Your task to perform on an android device: Open network settings Image 0: 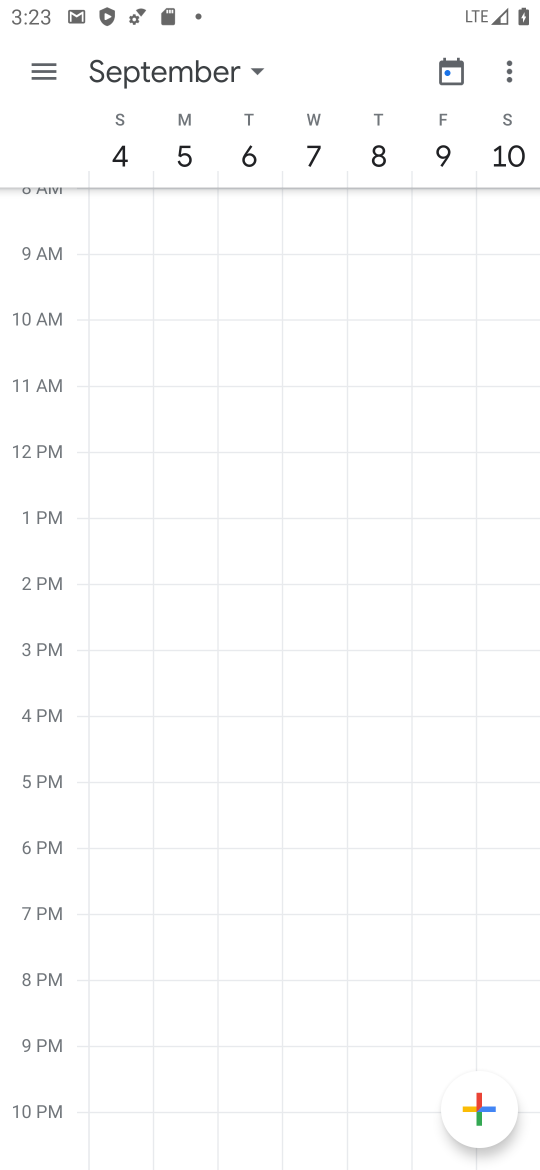
Step 0: press home button
Your task to perform on an android device: Open network settings Image 1: 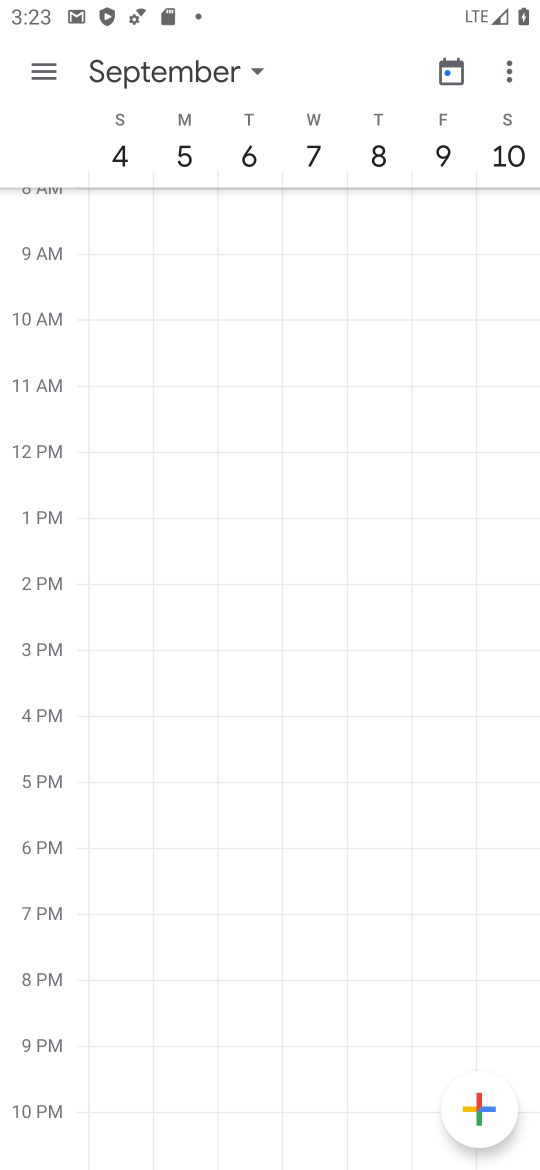
Step 1: press home button
Your task to perform on an android device: Open network settings Image 2: 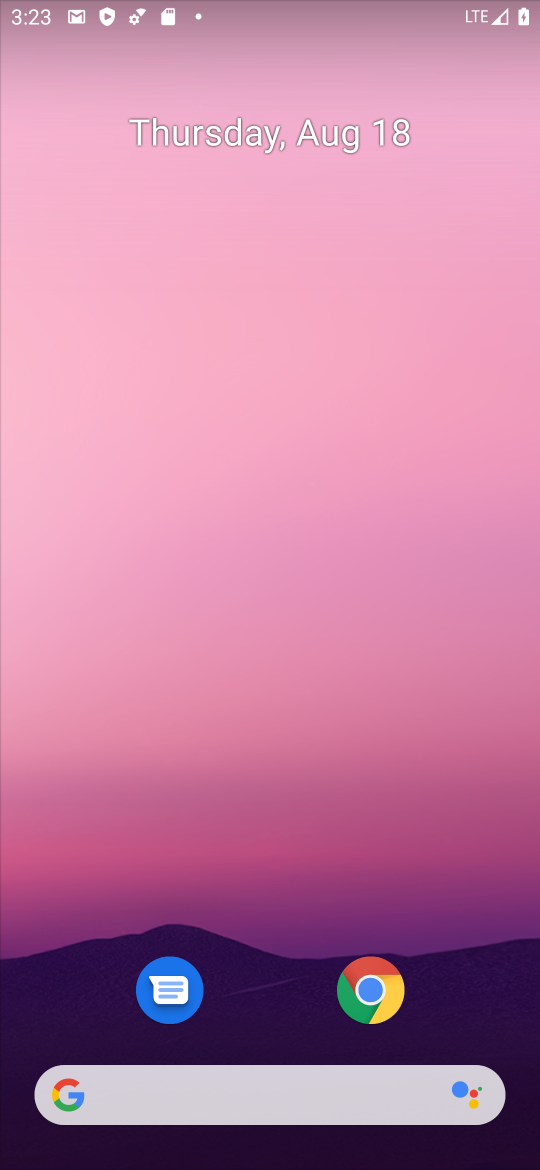
Step 2: drag from (277, 980) to (314, 53)
Your task to perform on an android device: Open network settings Image 3: 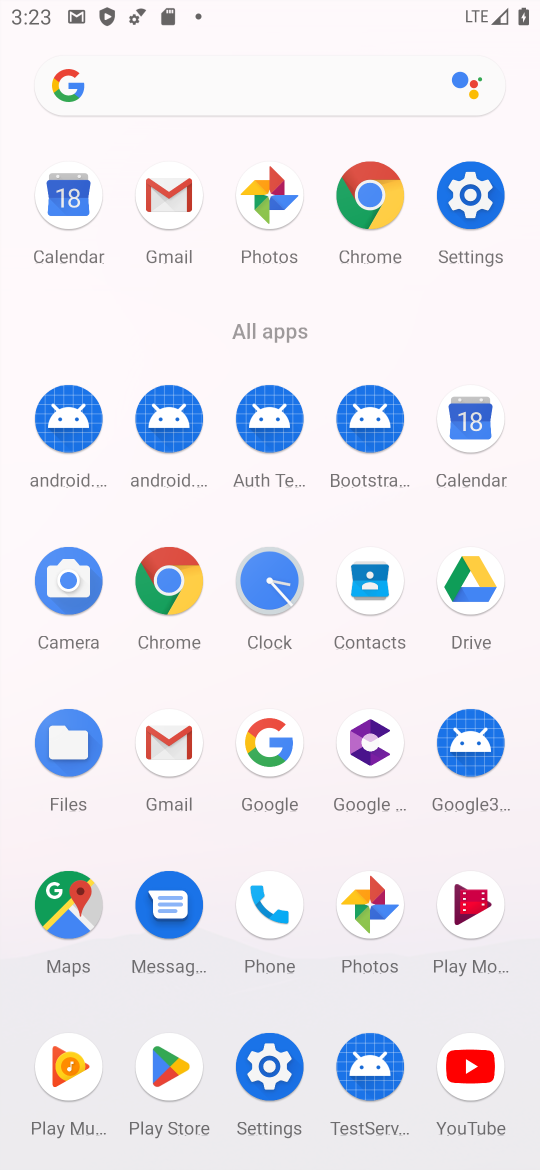
Step 3: click (268, 1070)
Your task to perform on an android device: Open network settings Image 4: 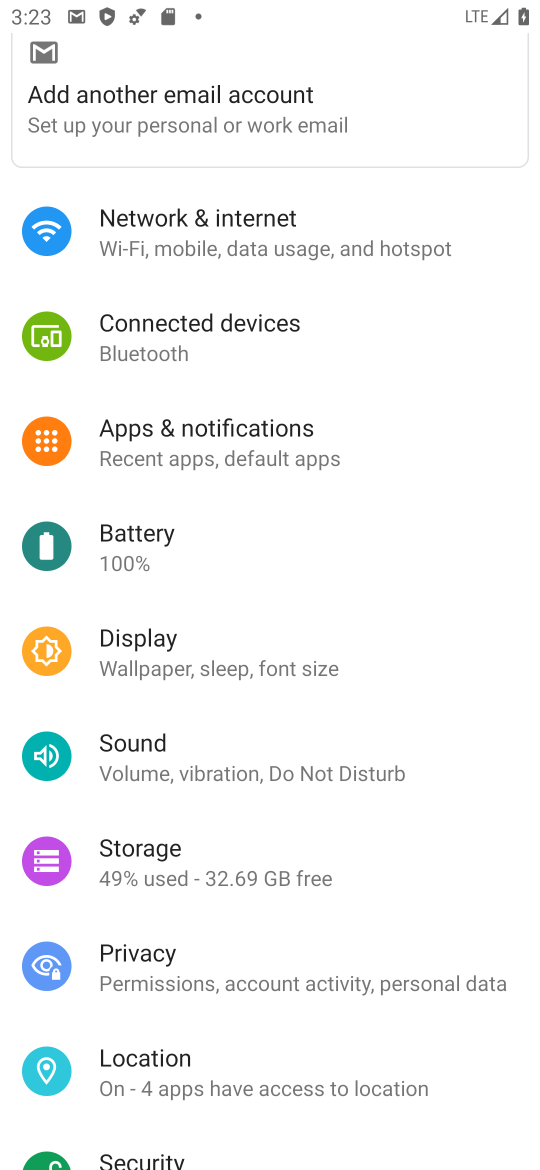
Step 4: click (236, 254)
Your task to perform on an android device: Open network settings Image 5: 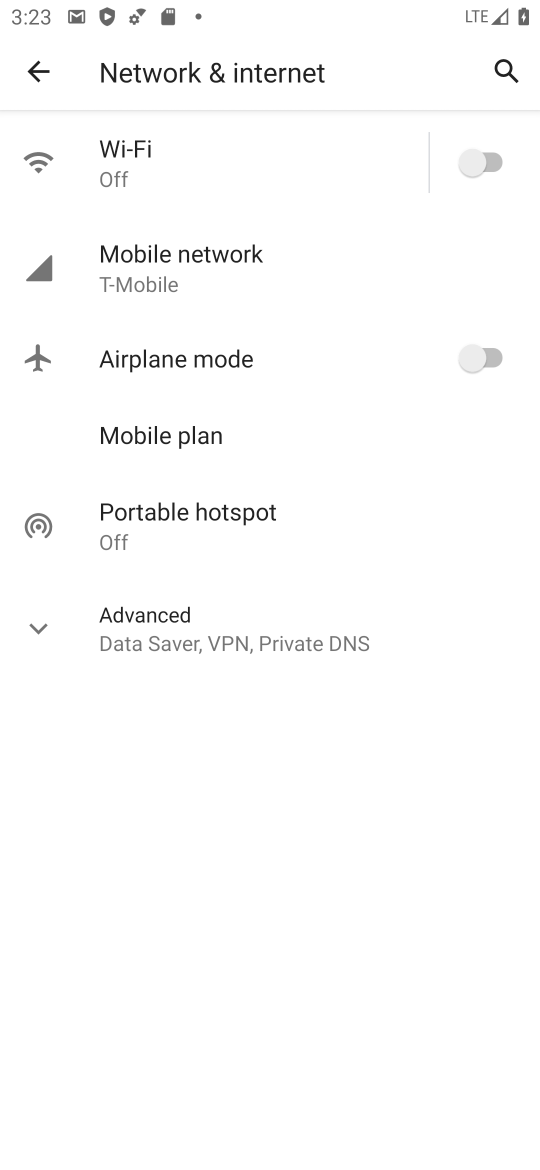
Step 5: task complete